Your task to perform on an android device: turn smart compose on in the gmail app Image 0: 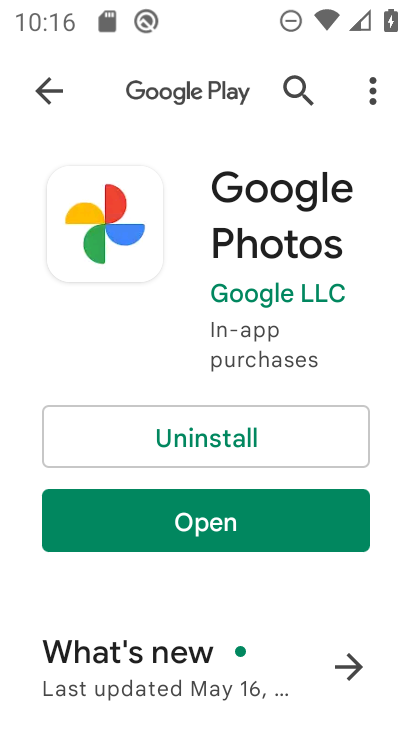
Step 0: press home button
Your task to perform on an android device: turn smart compose on in the gmail app Image 1: 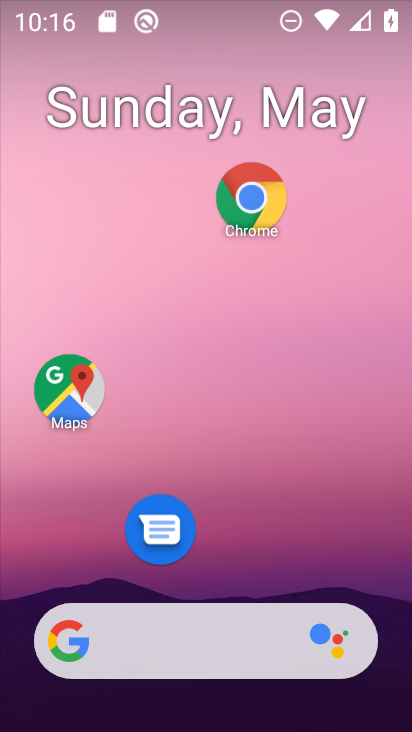
Step 1: drag from (258, 569) to (196, 121)
Your task to perform on an android device: turn smart compose on in the gmail app Image 2: 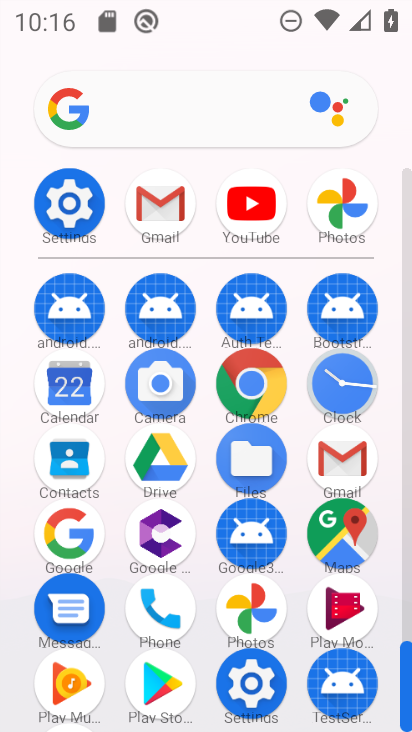
Step 2: click (158, 216)
Your task to perform on an android device: turn smart compose on in the gmail app Image 3: 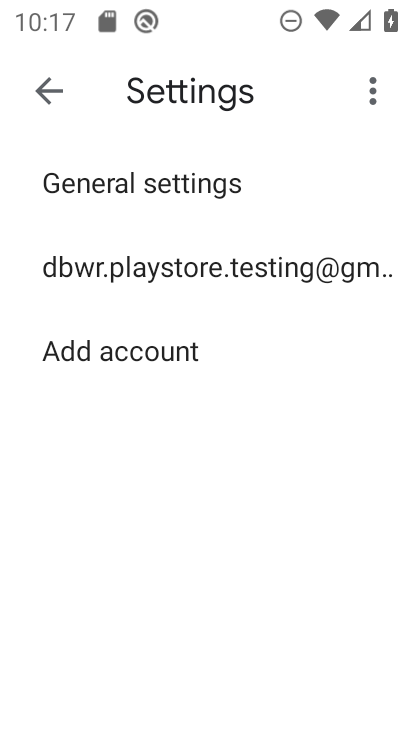
Step 3: click (80, 260)
Your task to perform on an android device: turn smart compose on in the gmail app Image 4: 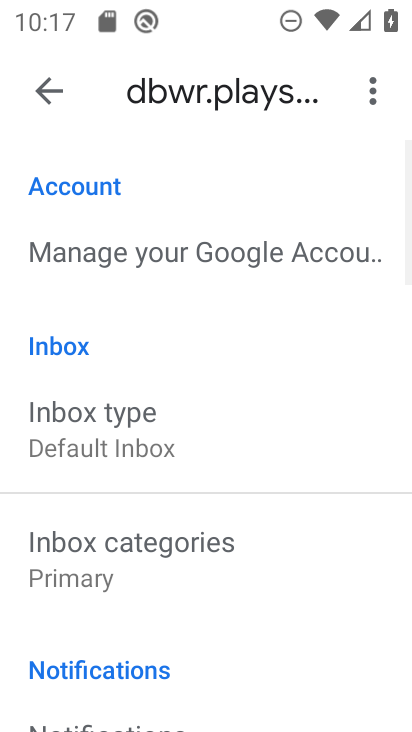
Step 4: task complete